Your task to perform on an android device: Open accessibility settings Image 0: 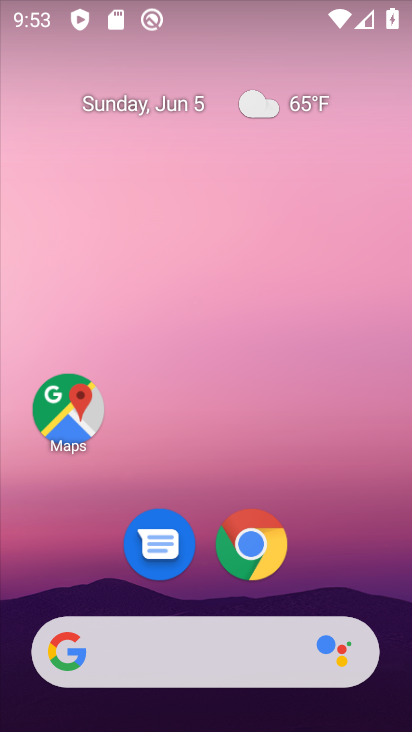
Step 0: task complete